Your task to perform on an android device: Is it going to rain tomorrow? Image 0: 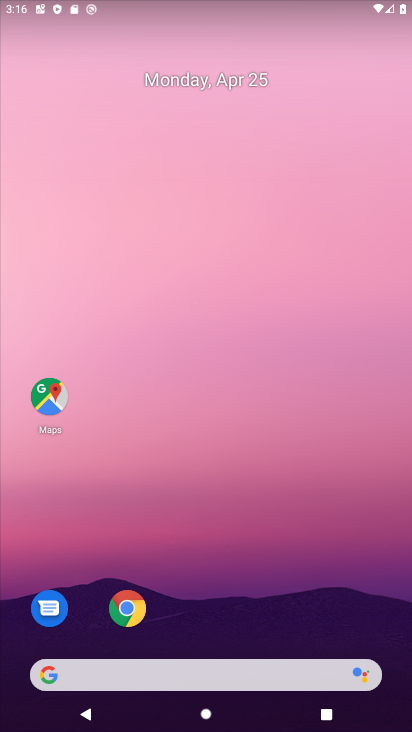
Step 0: drag from (221, 511) to (229, 18)
Your task to perform on an android device: Is it going to rain tomorrow? Image 1: 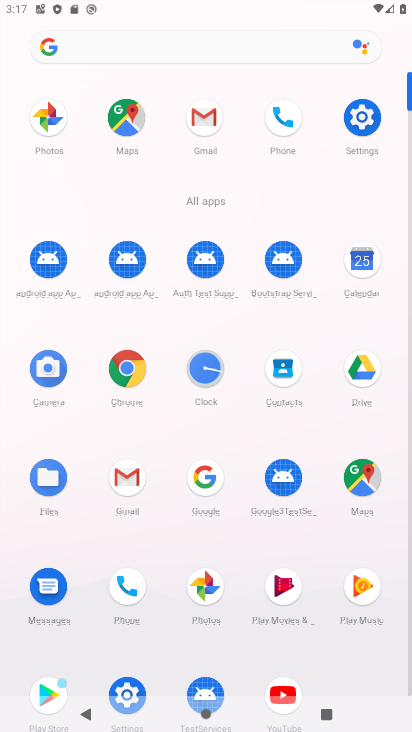
Step 1: click (210, 491)
Your task to perform on an android device: Is it going to rain tomorrow? Image 2: 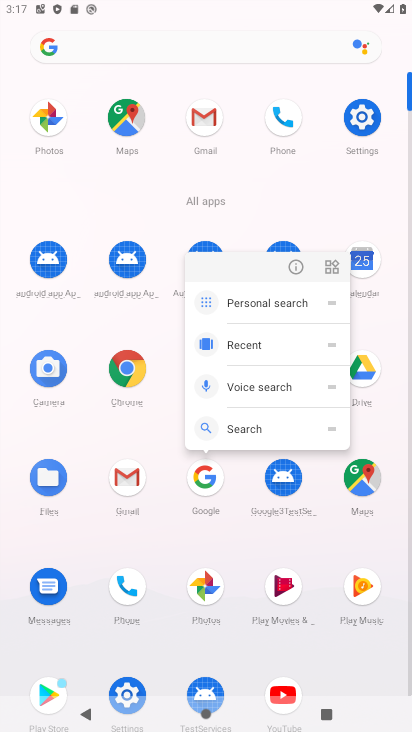
Step 2: click (220, 497)
Your task to perform on an android device: Is it going to rain tomorrow? Image 3: 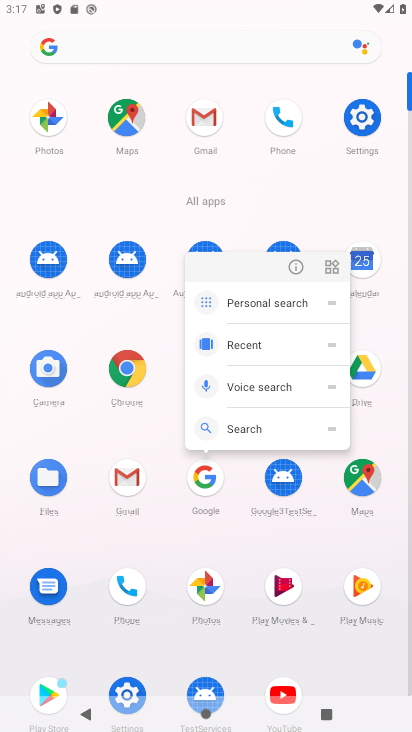
Step 3: click (206, 503)
Your task to perform on an android device: Is it going to rain tomorrow? Image 4: 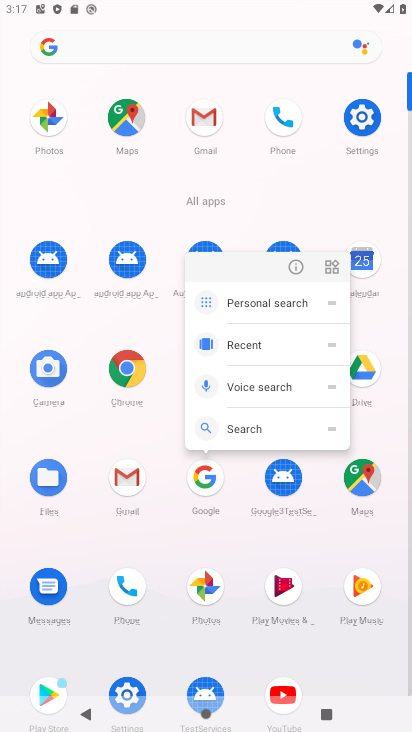
Step 4: click (206, 503)
Your task to perform on an android device: Is it going to rain tomorrow? Image 5: 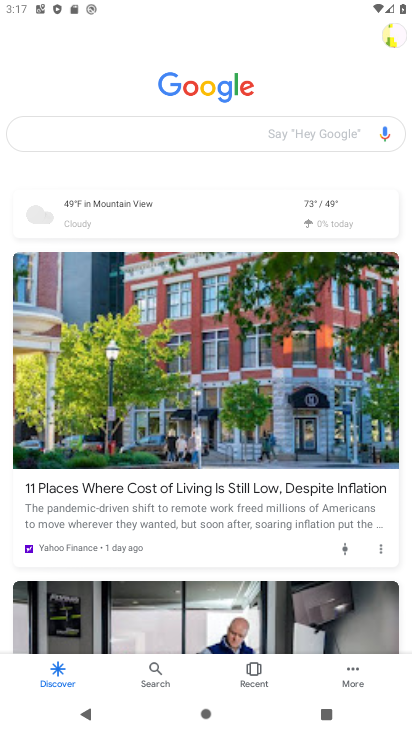
Step 5: click (269, 112)
Your task to perform on an android device: Is it going to rain tomorrow? Image 6: 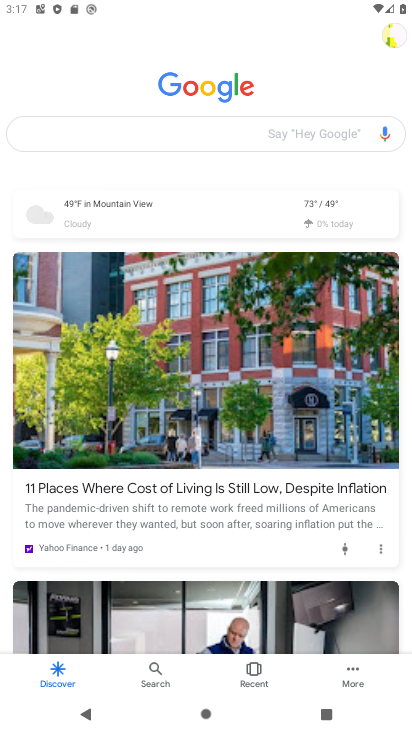
Step 6: click (270, 131)
Your task to perform on an android device: Is it going to rain tomorrow? Image 7: 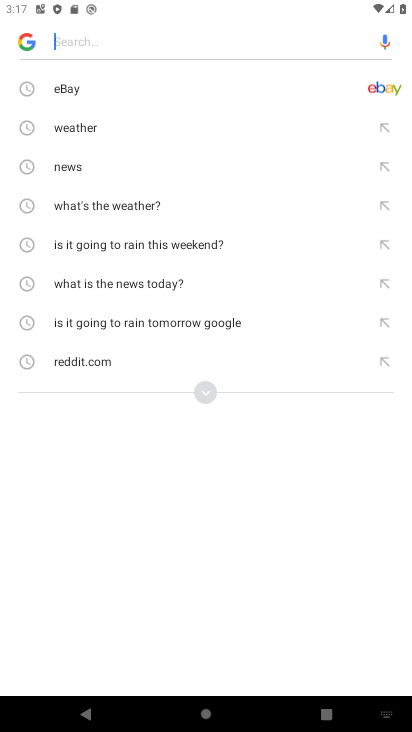
Step 7: click (386, 131)
Your task to perform on an android device: Is it going to rain tomorrow? Image 8: 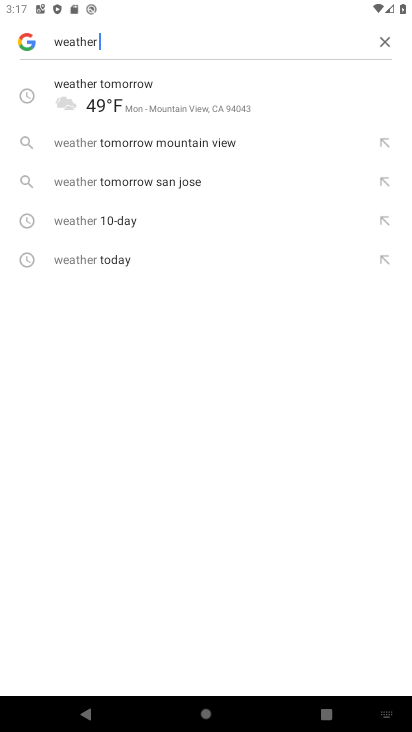
Step 8: click (231, 100)
Your task to perform on an android device: Is it going to rain tomorrow? Image 9: 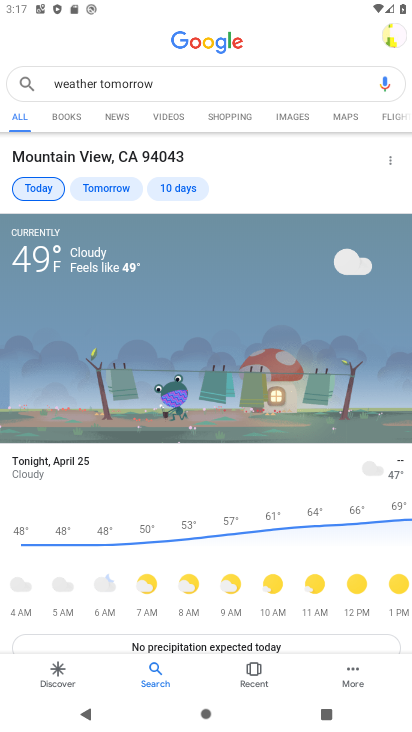
Step 9: click (122, 189)
Your task to perform on an android device: Is it going to rain tomorrow? Image 10: 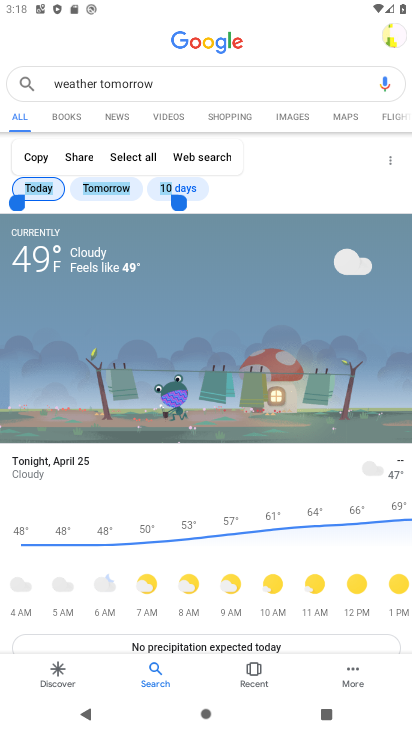
Step 10: click (289, 200)
Your task to perform on an android device: Is it going to rain tomorrow? Image 11: 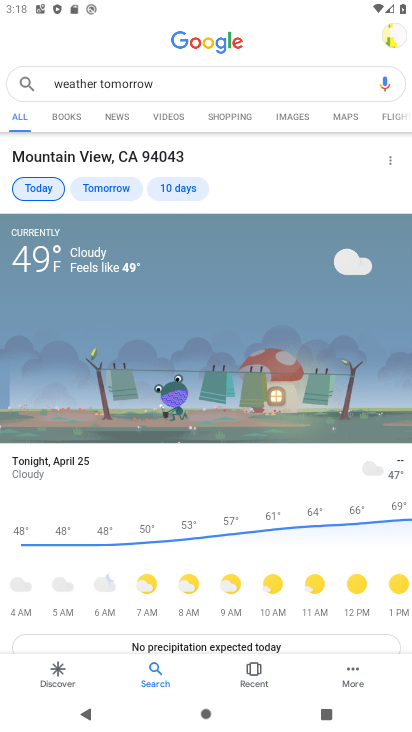
Step 11: click (134, 201)
Your task to perform on an android device: Is it going to rain tomorrow? Image 12: 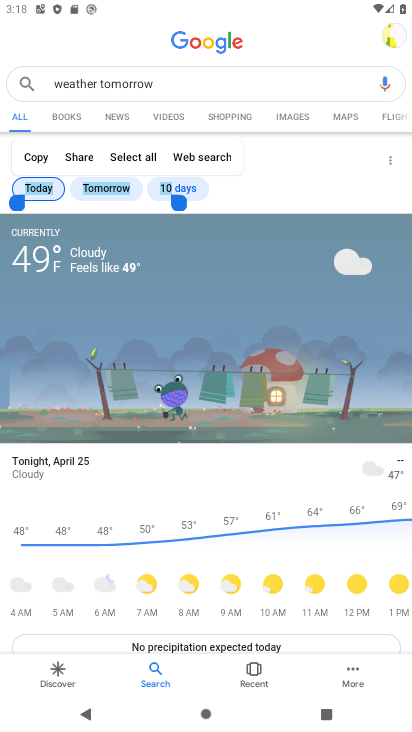
Step 12: click (281, 172)
Your task to perform on an android device: Is it going to rain tomorrow? Image 13: 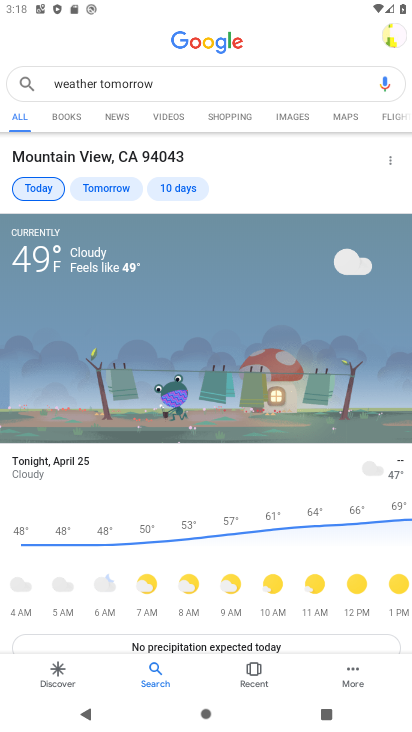
Step 13: click (121, 195)
Your task to perform on an android device: Is it going to rain tomorrow? Image 14: 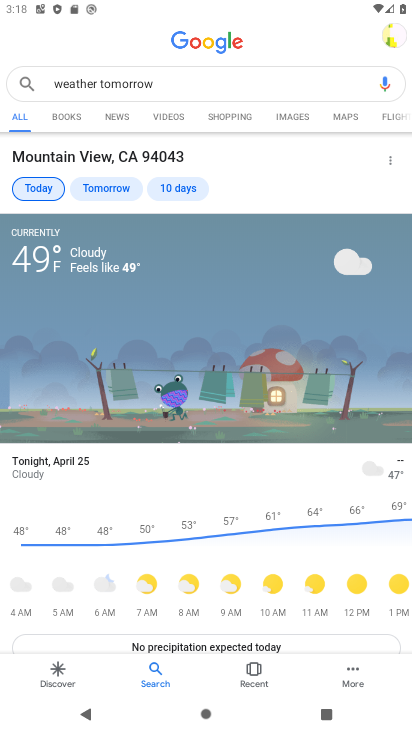
Step 14: click (131, 188)
Your task to perform on an android device: Is it going to rain tomorrow? Image 15: 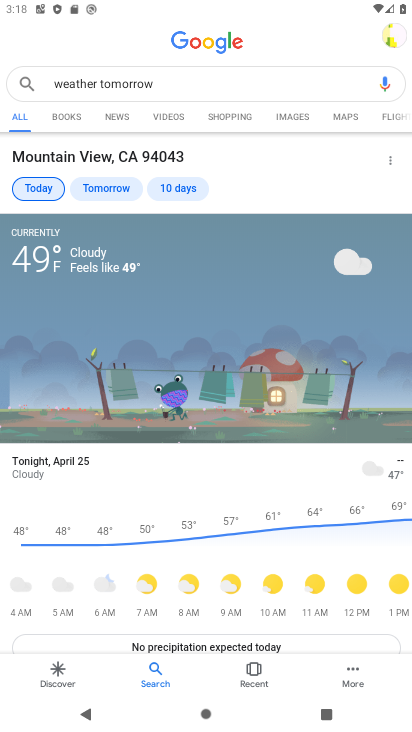
Step 15: click (131, 188)
Your task to perform on an android device: Is it going to rain tomorrow? Image 16: 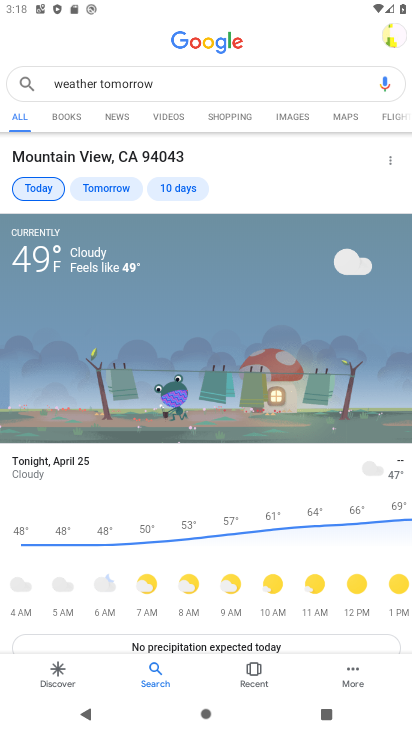
Step 16: click (119, 193)
Your task to perform on an android device: Is it going to rain tomorrow? Image 17: 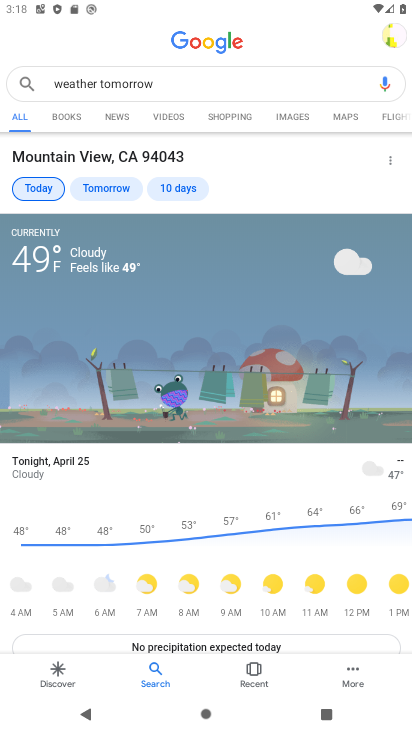
Step 17: click (119, 193)
Your task to perform on an android device: Is it going to rain tomorrow? Image 18: 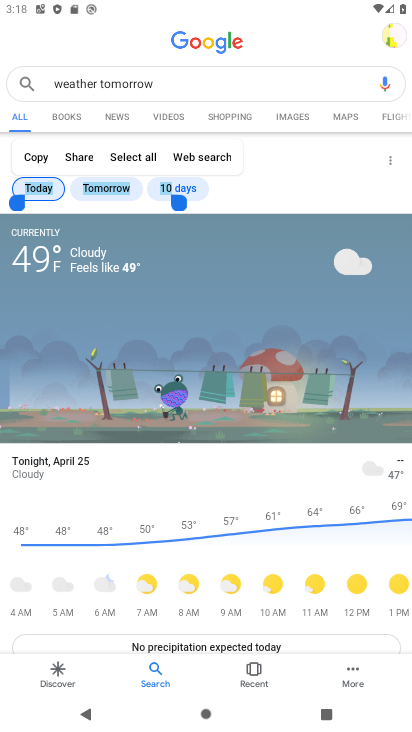
Step 18: click (116, 205)
Your task to perform on an android device: Is it going to rain tomorrow? Image 19: 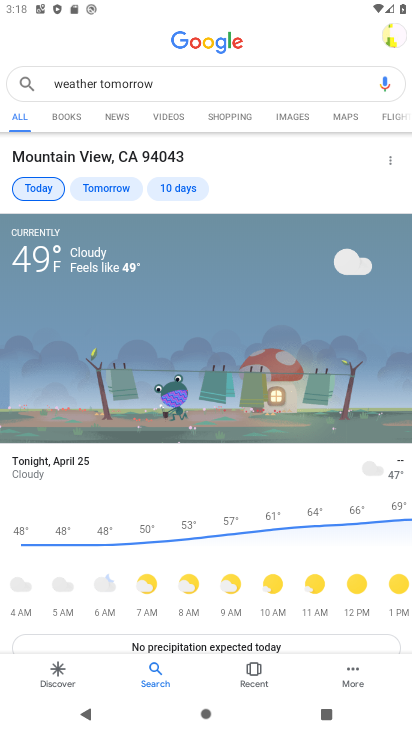
Step 19: click (130, 194)
Your task to perform on an android device: Is it going to rain tomorrow? Image 20: 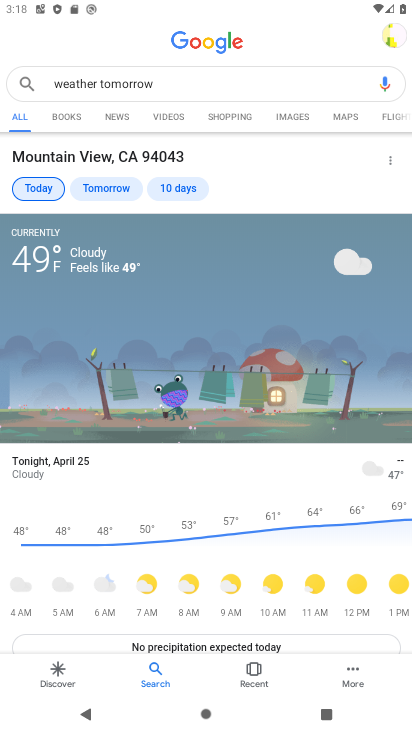
Step 20: click (130, 194)
Your task to perform on an android device: Is it going to rain tomorrow? Image 21: 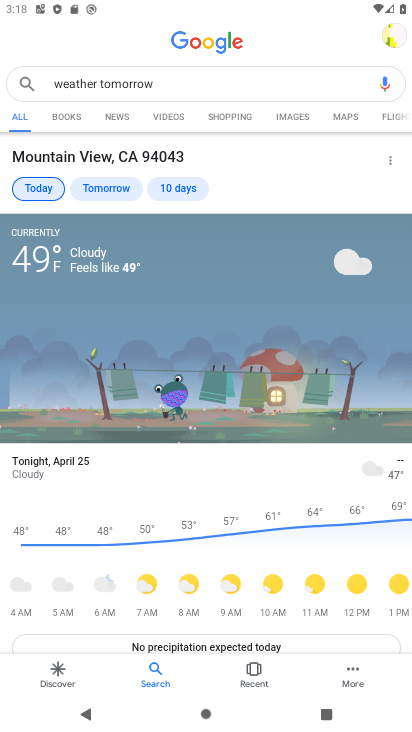
Step 21: click (126, 194)
Your task to perform on an android device: Is it going to rain tomorrow? Image 22: 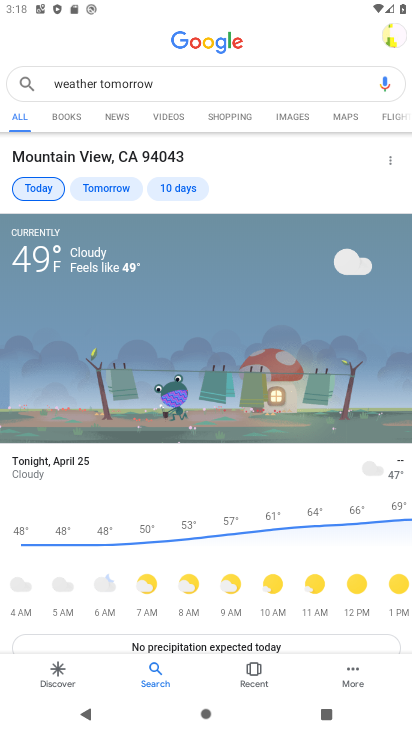
Step 22: click (125, 195)
Your task to perform on an android device: Is it going to rain tomorrow? Image 23: 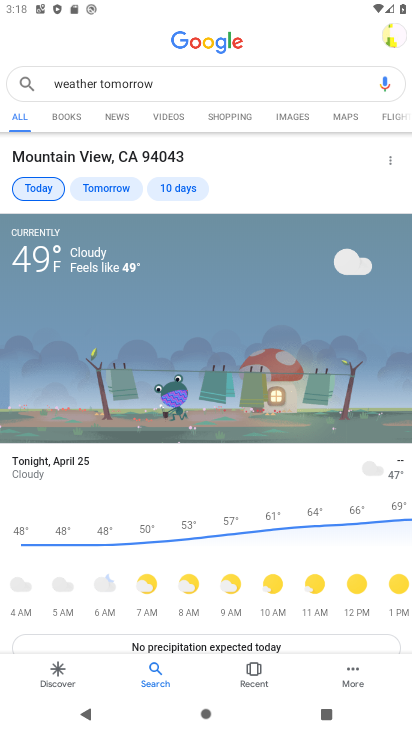
Step 23: click (118, 201)
Your task to perform on an android device: Is it going to rain tomorrow? Image 24: 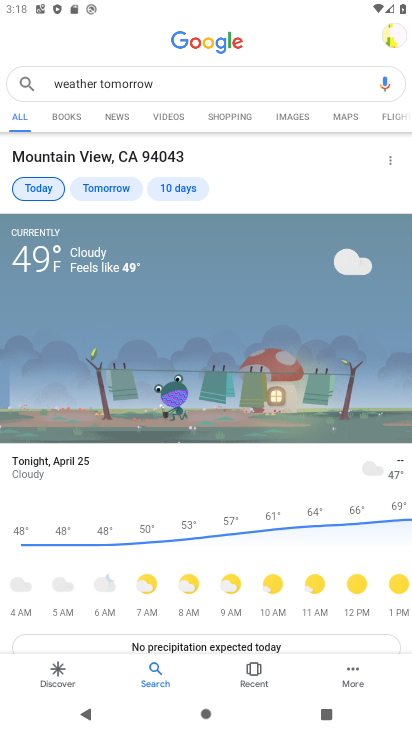
Step 24: click (128, 194)
Your task to perform on an android device: Is it going to rain tomorrow? Image 25: 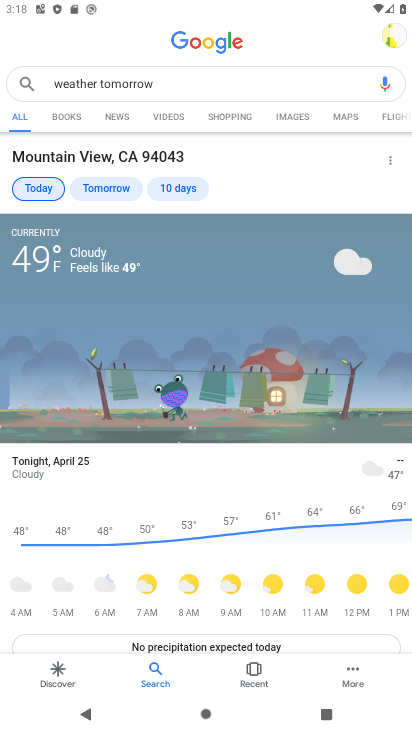
Step 25: task complete